Your task to perform on an android device: toggle location history Image 0: 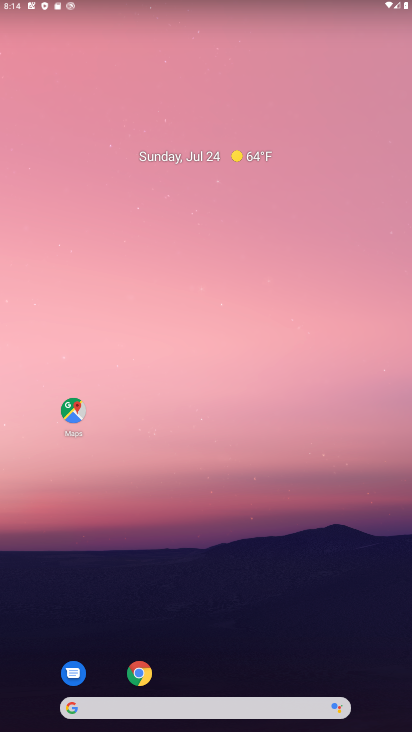
Step 0: drag from (306, 638) to (301, 169)
Your task to perform on an android device: toggle location history Image 1: 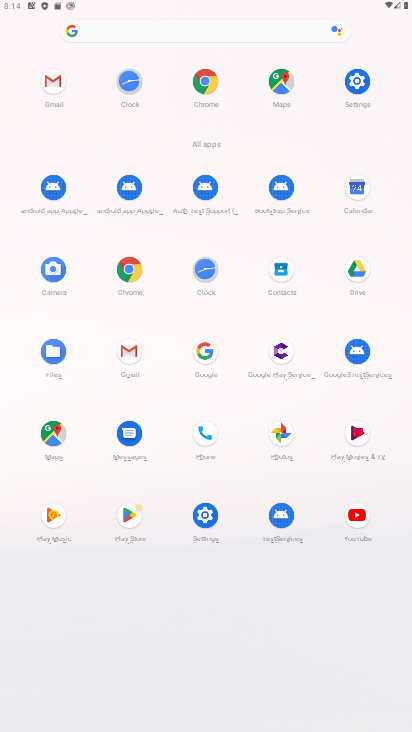
Step 1: click (207, 510)
Your task to perform on an android device: toggle location history Image 2: 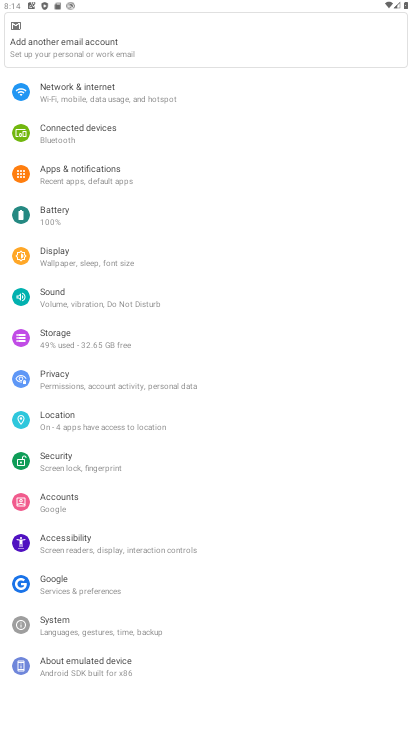
Step 2: click (135, 420)
Your task to perform on an android device: toggle location history Image 3: 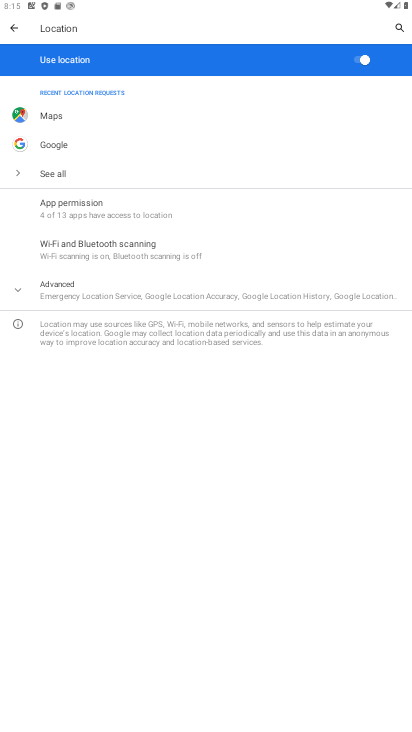
Step 3: click (190, 294)
Your task to perform on an android device: toggle location history Image 4: 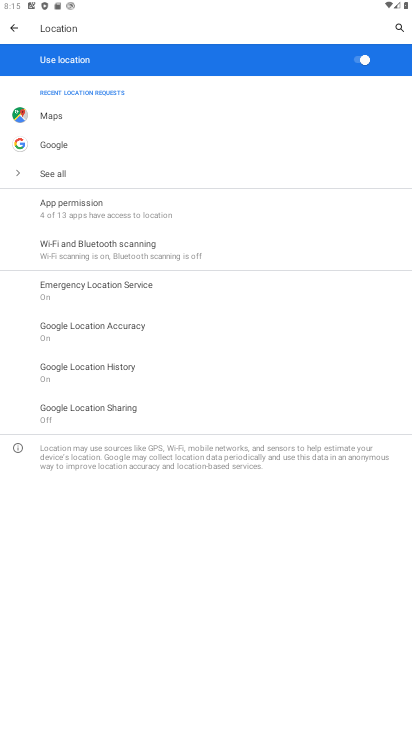
Step 4: click (147, 363)
Your task to perform on an android device: toggle location history Image 5: 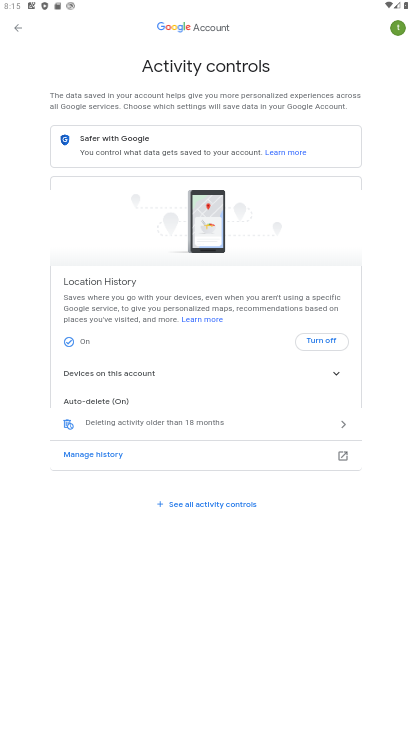
Step 5: click (322, 341)
Your task to perform on an android device: toggle location history Image 6: 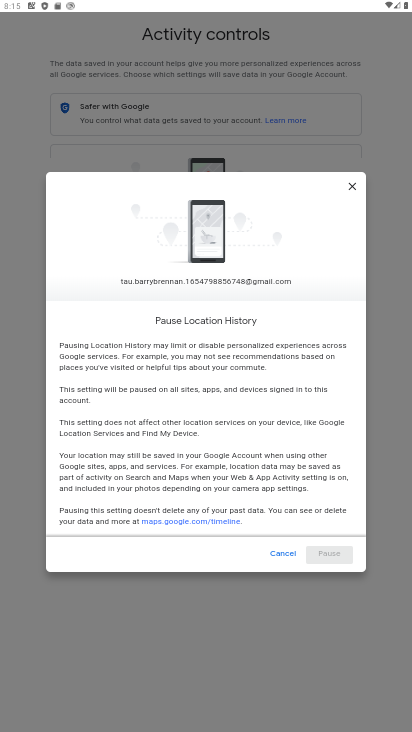
Step 6: drag from (315, 500) to (250, 126)
Your task to perform on an android device: toggle location history Image 7: 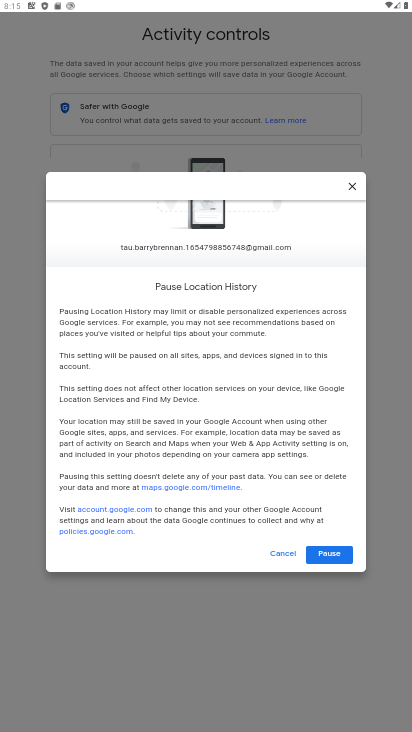
Step 7: click (328, 555)
Your task to perform on an android device: toggle location history Image 8: 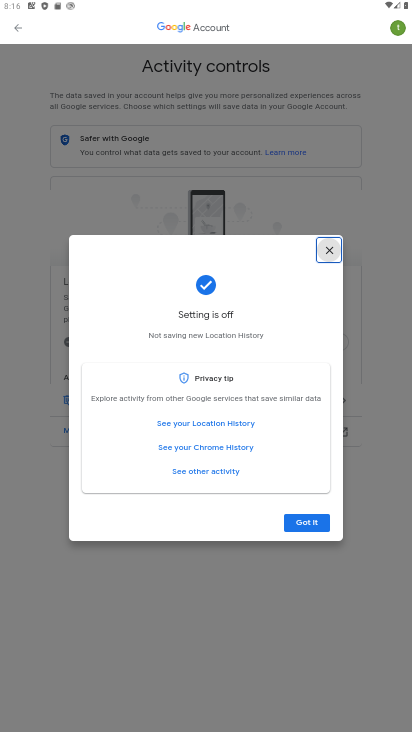
Step 8: click (303, 516)
Your task to perform on an android device: toggle location history Image 9: 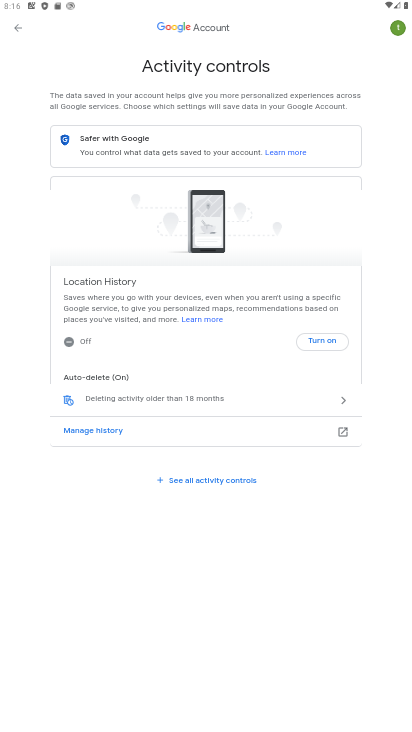
Step 9: task complete